Your task to perform on an android device: Open Maps and search for coffee Image 0: 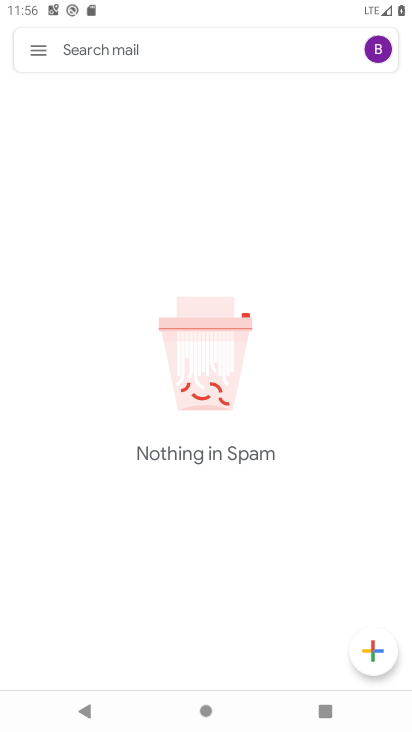
Step 0: press back button
Your task to perform on an android device: Open Maps and search for coffee Image 1: 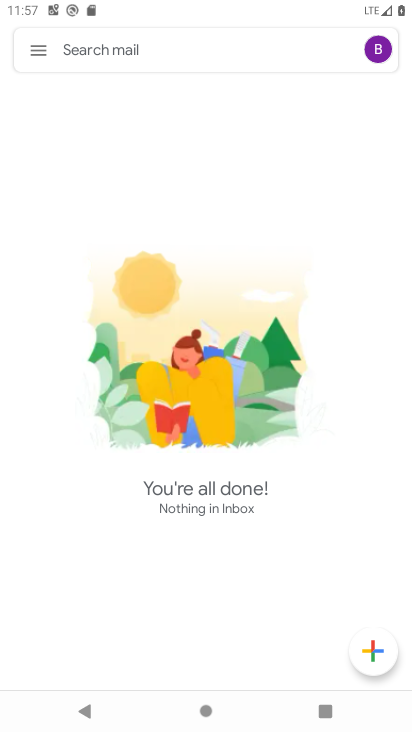
Step 1: click (27, 42)
Your task to perform on an android device: Open Maps and search for coffee Image 2: 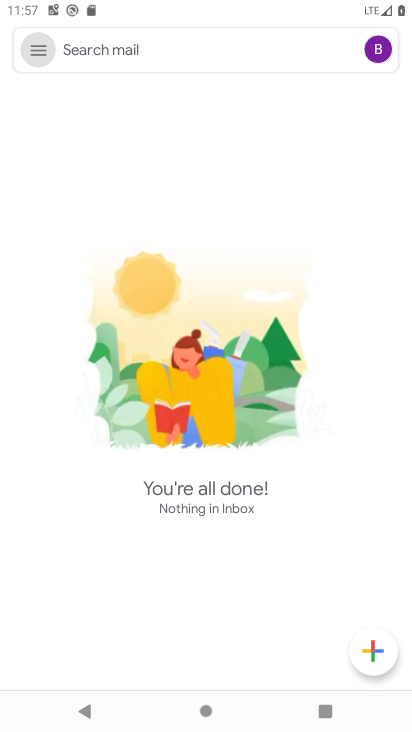
Step 2: click (29, 43)
Your task to perform on an android device: Open Maps and search for coffee Image 3: 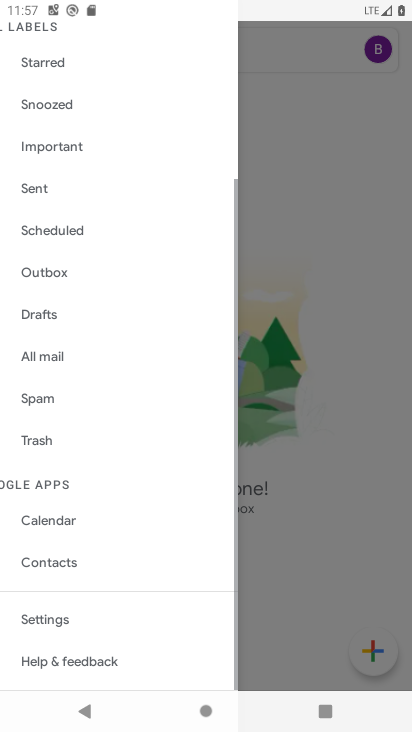
Step 3: click (30, 46)
Your task to perform on an android device: Open Maps and search for coffee Image 4: 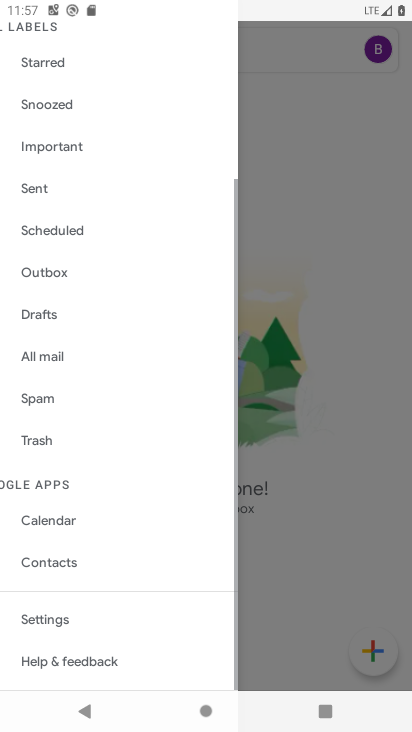
Step 4: click (29, 47)
Your task to perform on an android device: Open Maps and search for coffee Image 5: 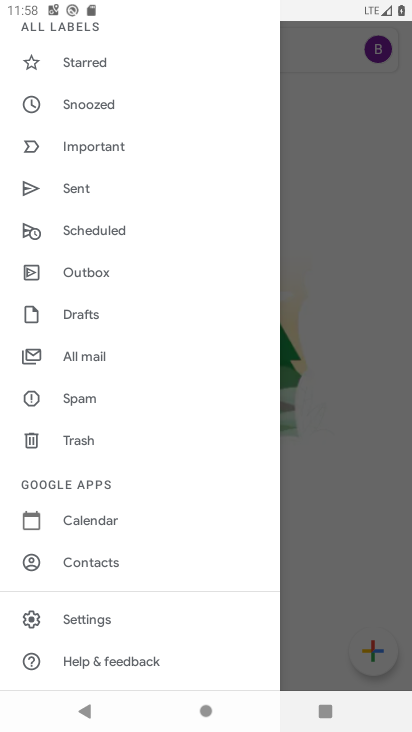
Step 5: click (340, 491)
Your task to perform on an android device: Open Maps and search for coffee Image 6: 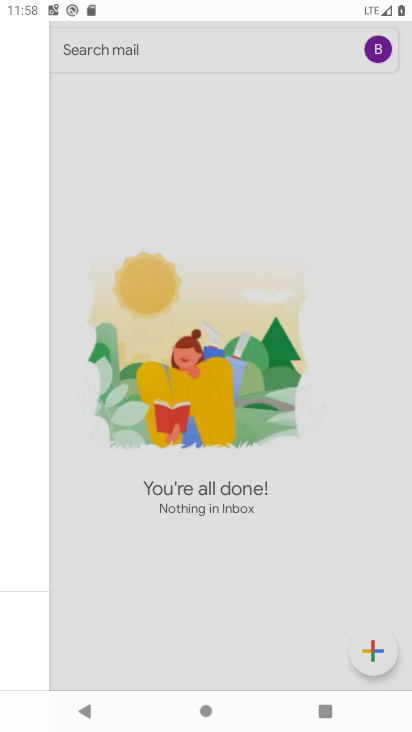
Step 6: click (299, 321)
Your task to perform on an android device: Open Maps and search for coffee Image 7: 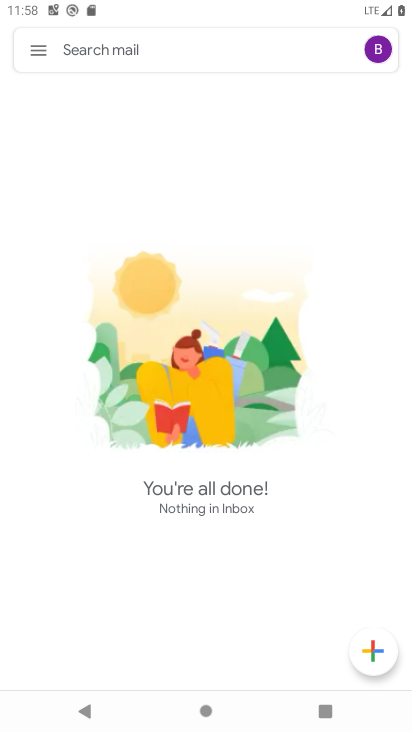
Step 7: click (299, 321)
Your task to perform on an android device: Open Maps and search for coffee Image 8: 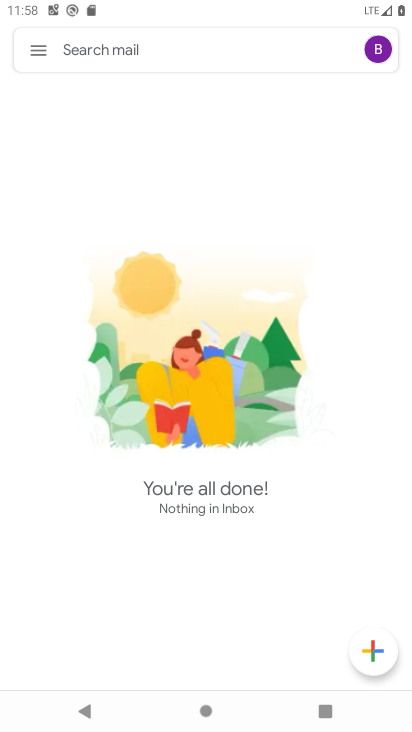
Step 8: click (71, 31)
Your task to perform on an android device: Open Maps and search for coffee Image 9: 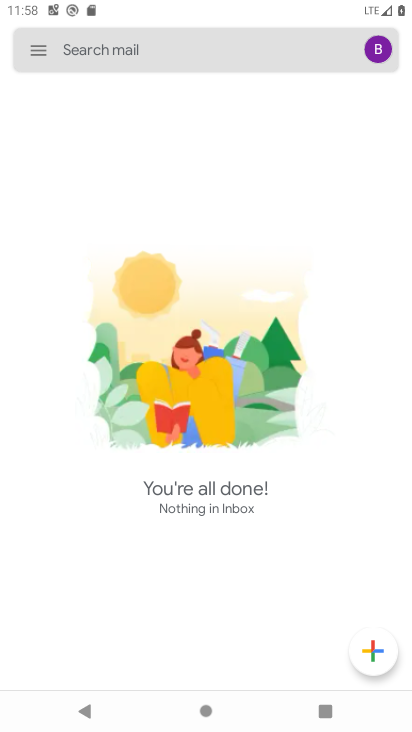
Step 9: click (70, 33)
Your task to perform on an android device: Open Maps and search for coffee Image 10: 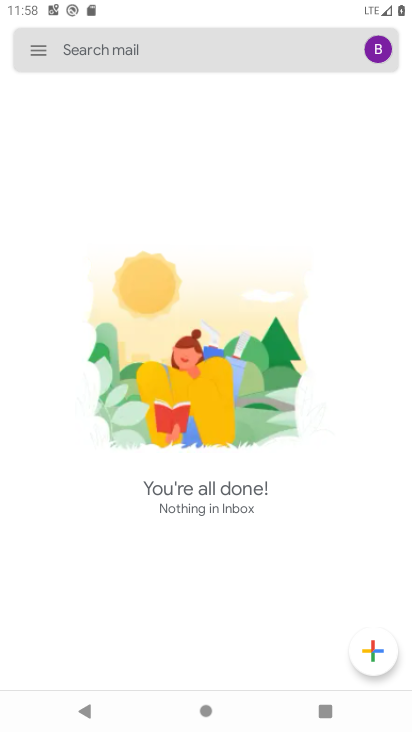
Step 10: click (67, 40)
Your task to perform on an android device: Open Maps and search for coffee Image 11: 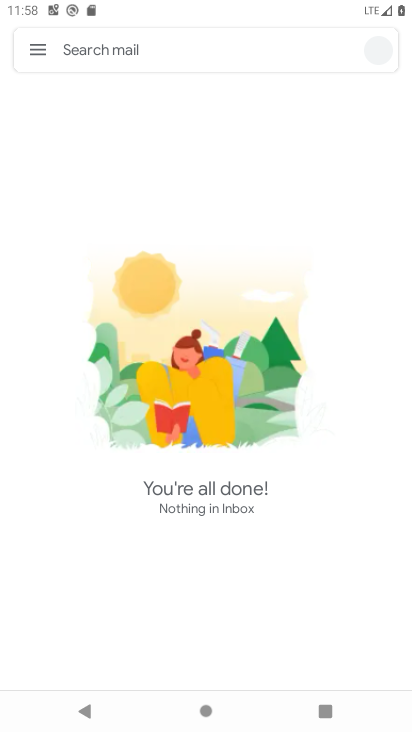
Step 11: click (67, 41)
Your task to perform on an android device: Open Maps and search for coffee Image 12: 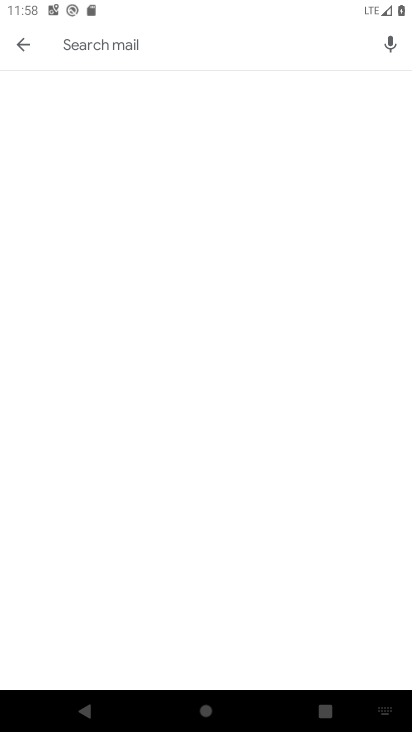
Step 12: type "coffee"
Your task to perform on an android device: Open Maps and search for coffee Image 13: 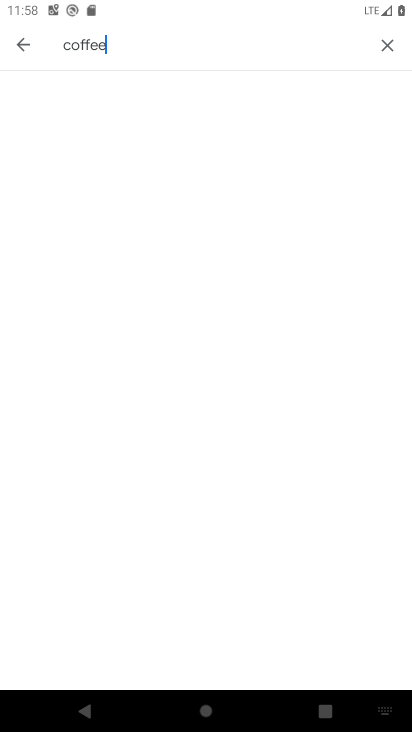
Step 13: task complete